Your task to perform on an android device: turn off picture-in-picture Image 0: 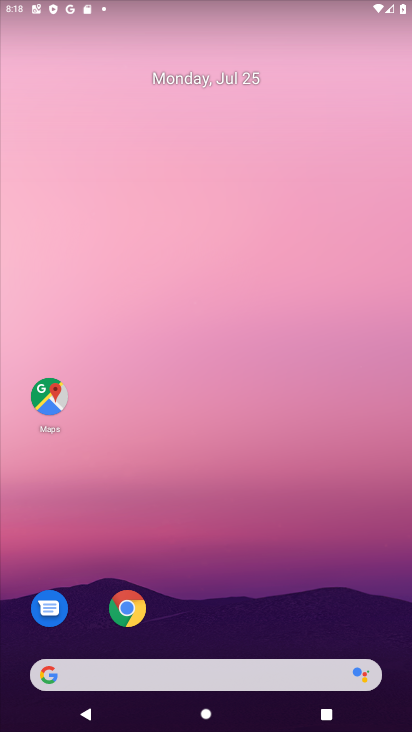
Step 0: drag from (233, 656) to (265, 231)
Your task to perform on an android device: turn off picture-in-picture Image 1: 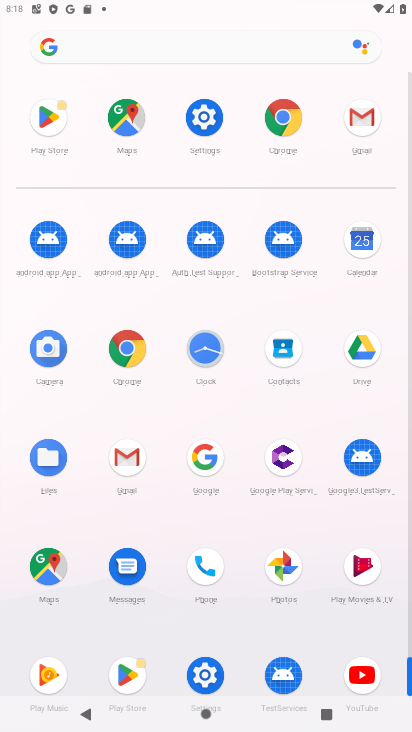
Step 1: click (219, 149)
Your task to perform on an android device: turn off picture-in-picture Image 2: 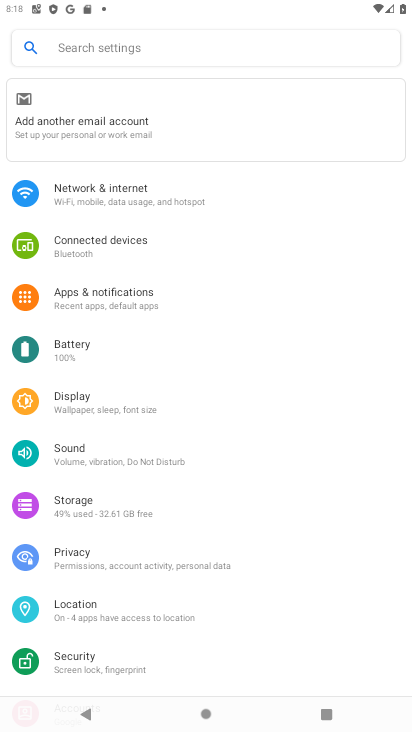
Step 2: click (115, 303)
Your task to perform on an android device: turn off picture-in-picture Image 3: 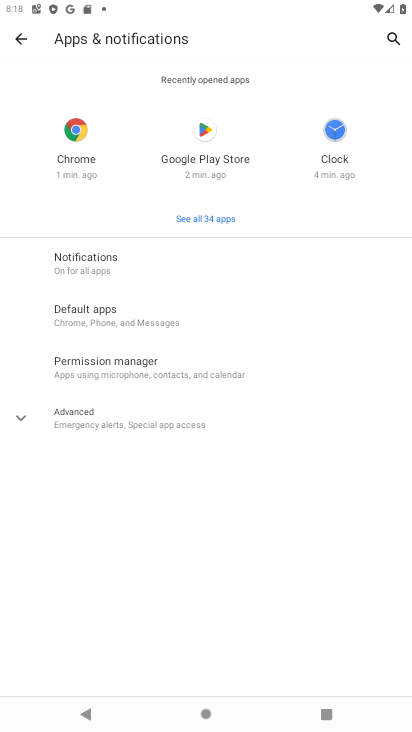
Step 3: click (120, 428)
Your task to perform on an android device: turn off picture-in-picture Image 4: 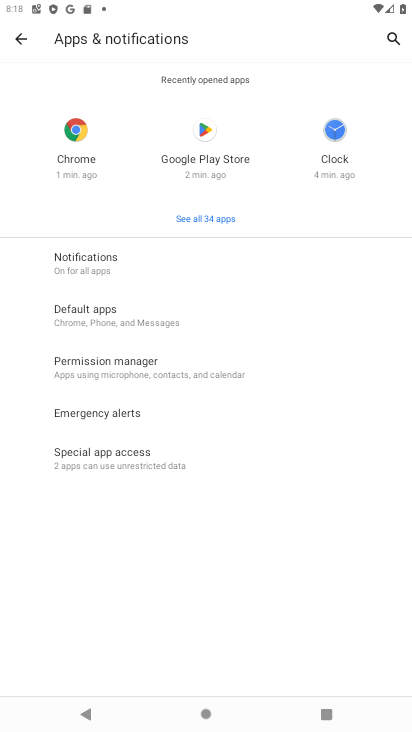
Step 4: click (126, 462)
Your task to perform on an android device: turn off picture-in-picture Image 5: 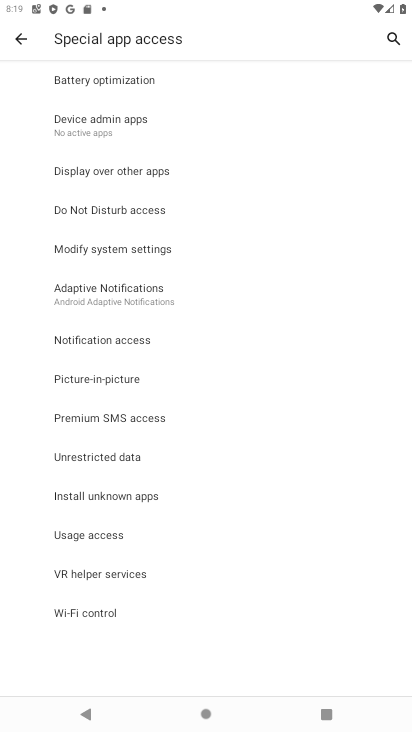
Step 5: click (118, 376)
Your task to perform on an android device: turn off picture-in-picture Image 6: 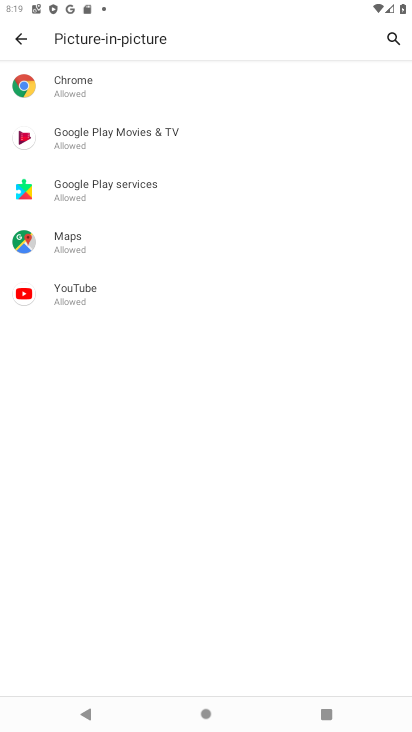
Step 6: click (123, 85)
Your task to perform on an android device: turn off picture-in-picture Image 7: 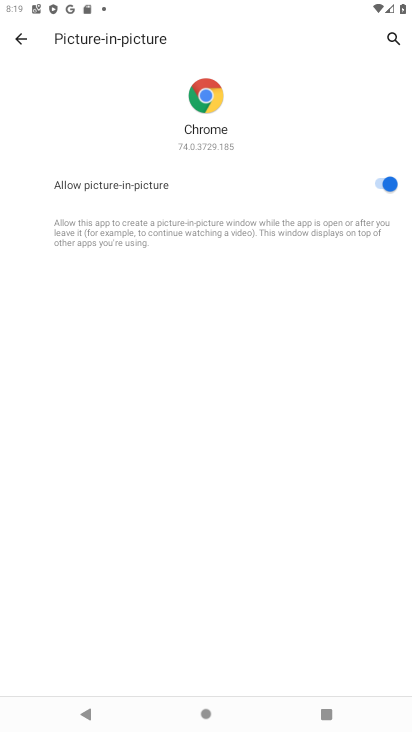
Step 7: click (381, 187)
Your task to perform on an android device: turn off picture-in-picture Image 8: 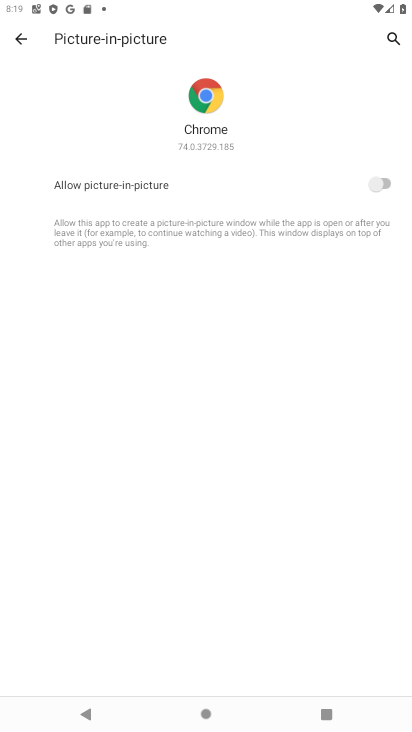
Step 8: task complete